Your task to perform on an android device: snooze an email in the gmail app Image 0: 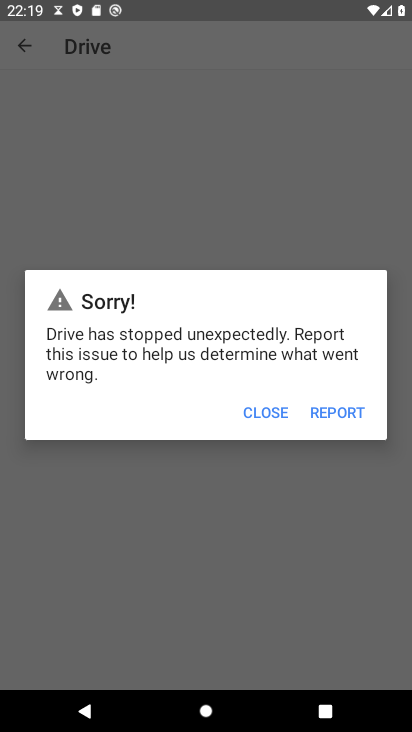
Step 0: press home button
Your task to perform on an android device: snooze an email in the gmail app Image 1: 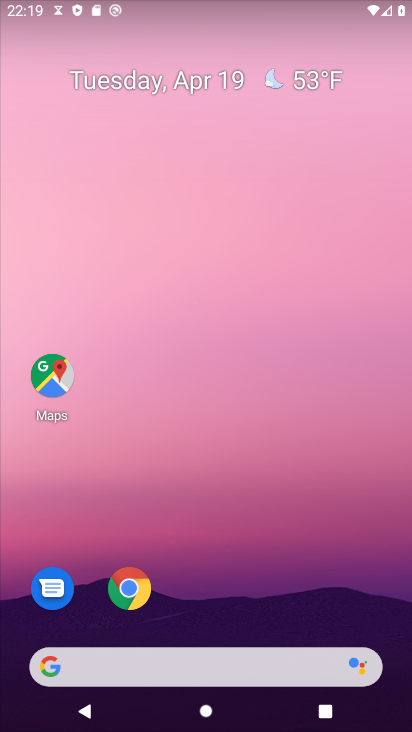
Step 1: drag from (204, 605) to (233, 88)
Your task to perform on an android device: snooze an email in the gmail app Image 2: 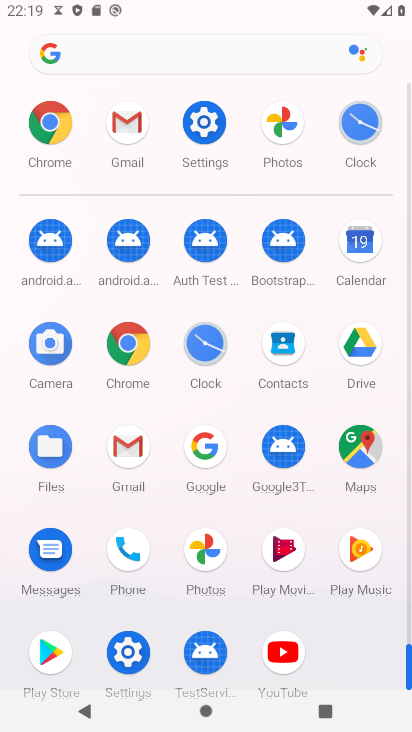
Step 2: click (127, 445)
Your task to perform on an android device: snooze an email in the gmail app Image 3: 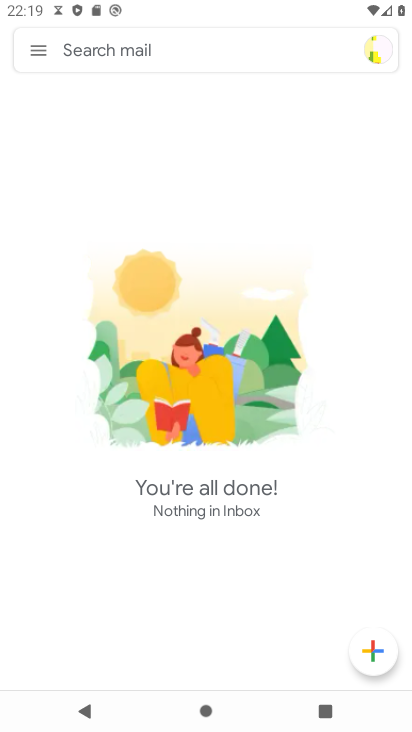
Step 3: click (40, 49)
Your task to perform on an android device: snooze an email in the gmail app Image 4: 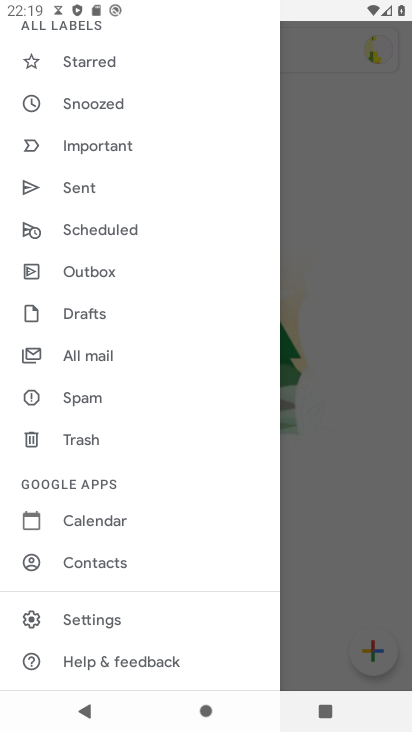
Step 4: click (101, 357)
Your task to perform on an android device: snooze an email in the gmail app Image 5: 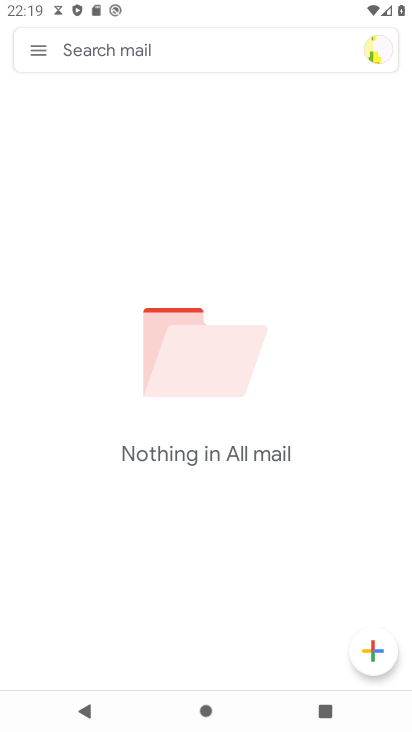
Step 5: click (41, 52)
Your task to perform on an android device: snooze an email in the gmail app Image 6: 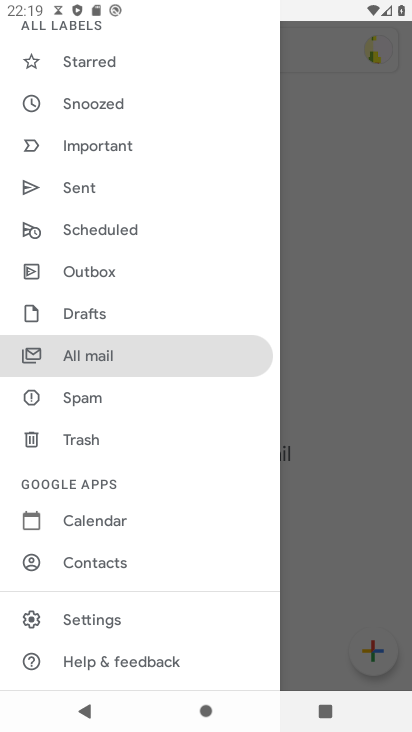
Step 6: click (95, 110)
Your task to perform on an android device: snooze an email in the gmail app Image 7: 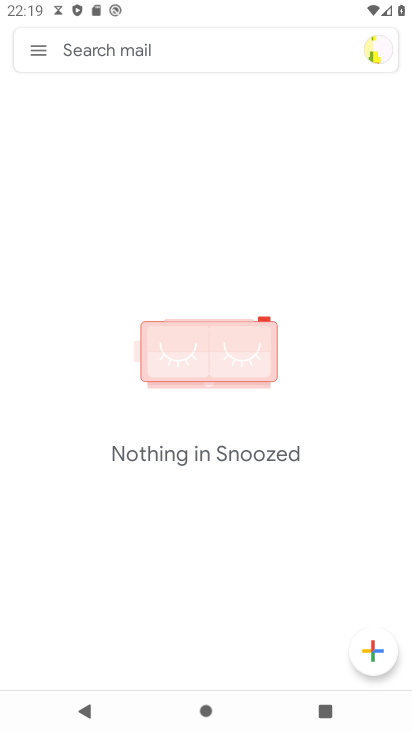
Step 7: task complete